Your task to perform on an android device: Open Amazon Image 0: 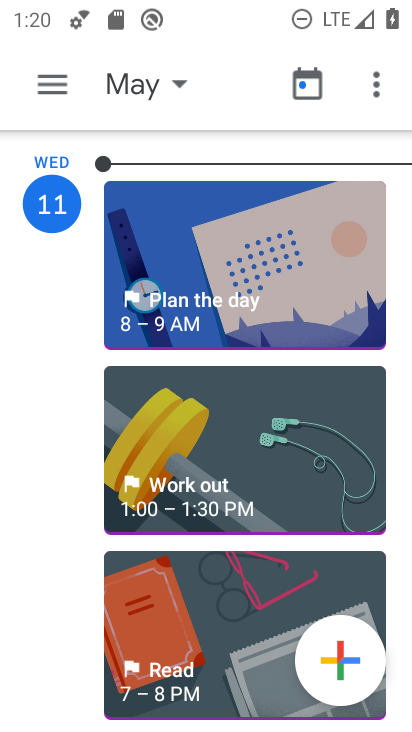
Step 0: press home button
Your task to perform on an android device: Open Amazon Image 1: 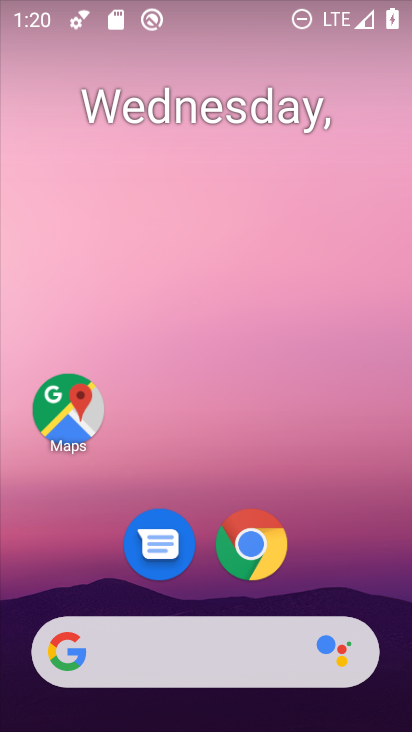
Step 1: click (237, 536)
Your task to perform on an android device: Open Amazon Image 2: 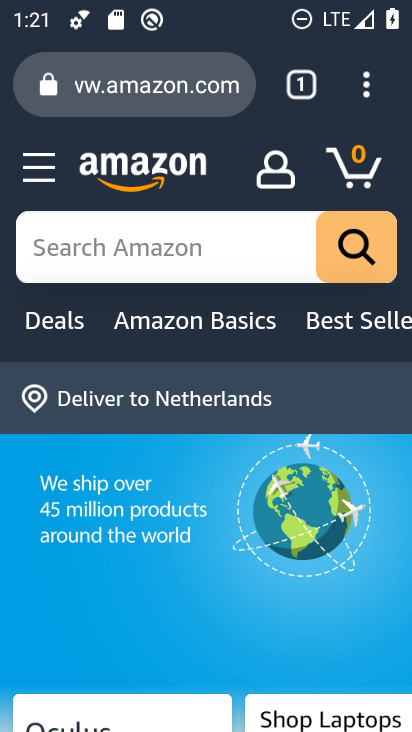
Step 2: task complete